Your task to perform on an android device: turn off location history Image 0: 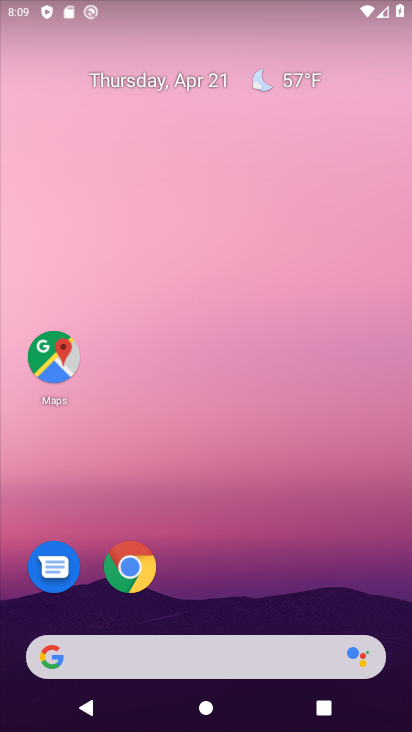
Step 0: drag from (193, 638) to (182, 63)
Your task to perform on an android device: turn off location history Image 1: 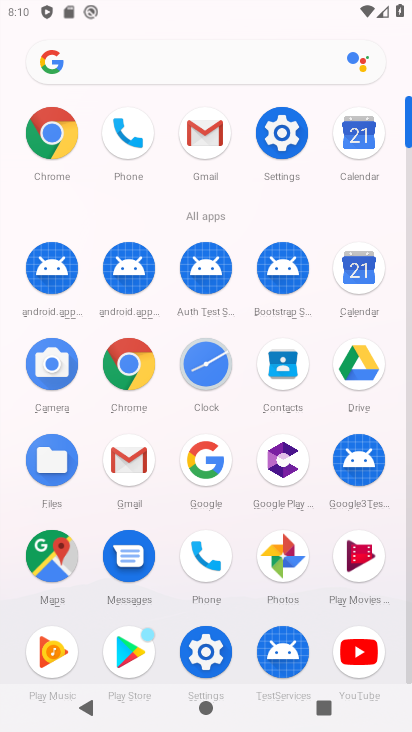
Step 1: click (213, 657)
Your task to perform on an android device: turn off location history Image 2: 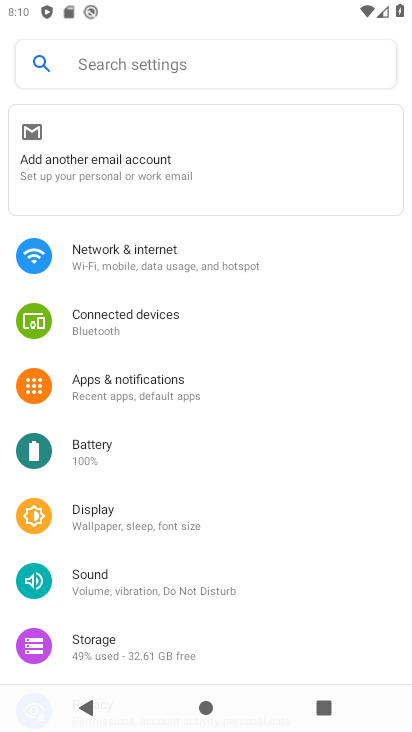
Step 2: drag from (174, 652) to (132, 311)
Your task to perform on an android device: turn off location history Image 3: 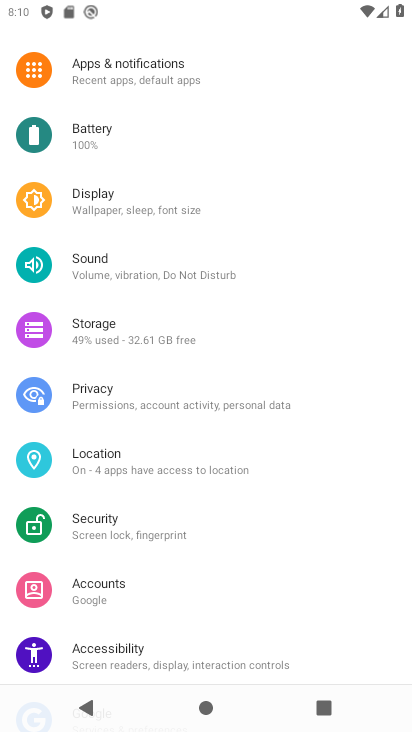
Step 3: click (95, 455)
Your task to perform on an android device: turn off location history Image 4: 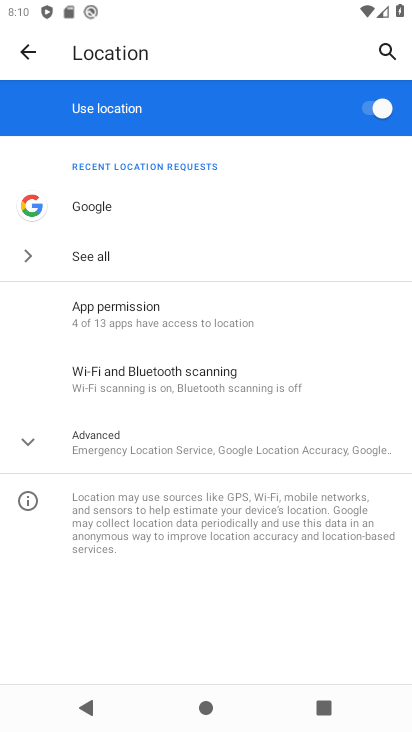
Step 4: click (175, 436)
Your task to perform on an android device: turn off location history Image 5: 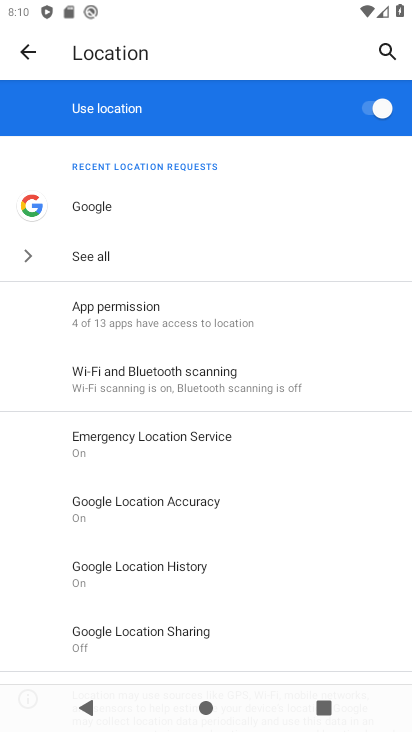
Step 5: click (170, 562)
Your task to perform on an android device: turn off location history Image 6: 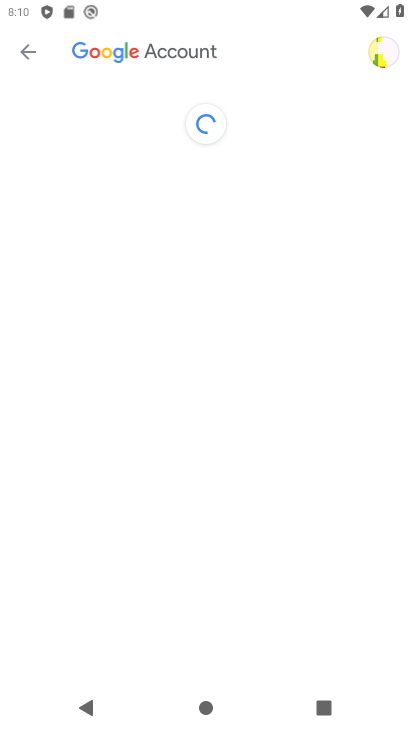
Step 6: task complete